Your task to perform on an android device: What is the news today? Image 0: 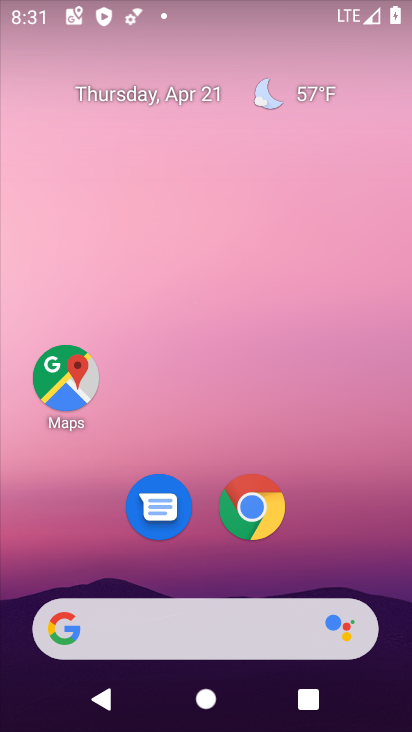
Step 0: click (242, 509)
Your task to perform on an android device: What is the news today? Image 1: 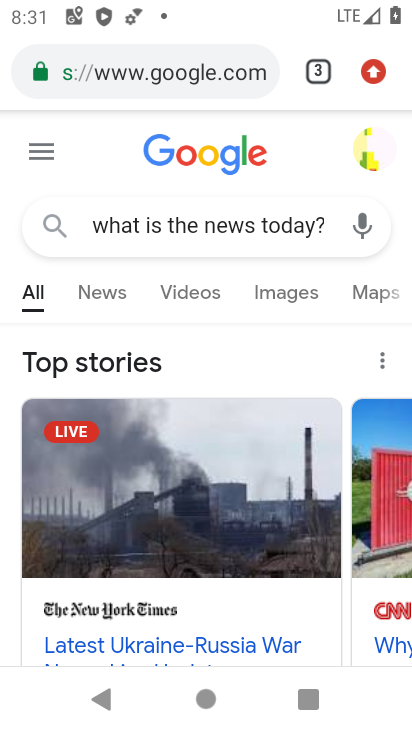
Step 1: task complete